Your task to perform on an android device: See recent photos Image 0: 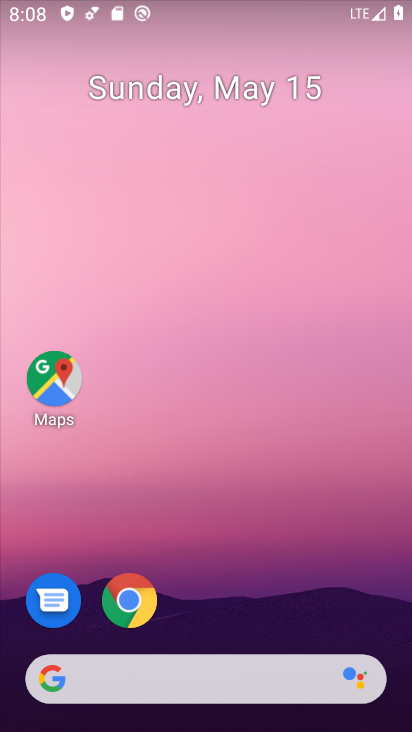
Step 0: drag from (181, 558) to (66, 88)
Your task to perform on an android device: See recent photos Image 1: 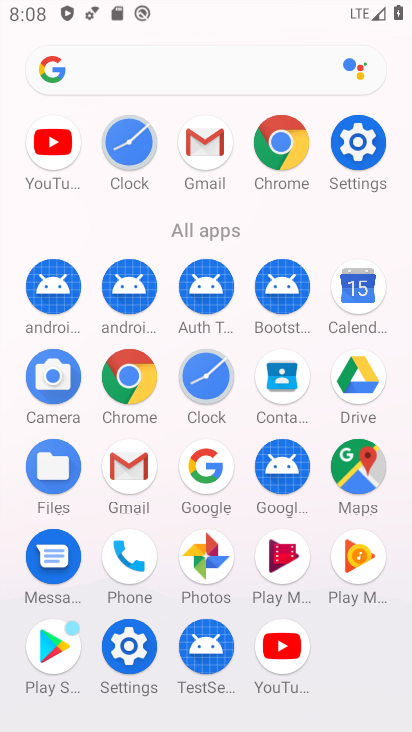
Step 1: click (200, 550)
Your task to perform on an android device: See recent photos Image 2: 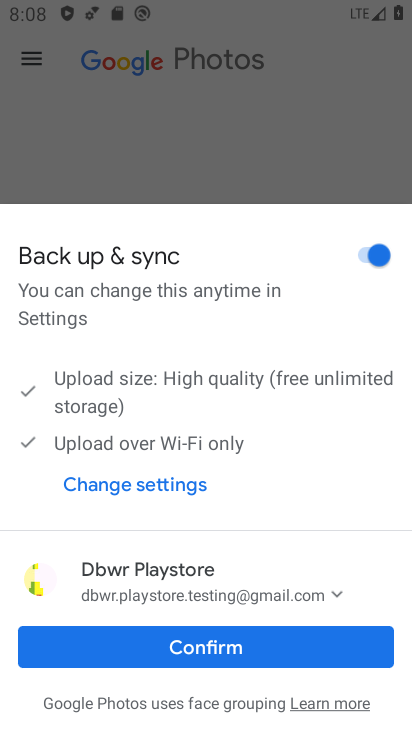
Step 2: click (253, 642)
Your task to perform on an android device: See recent photos Image 3: 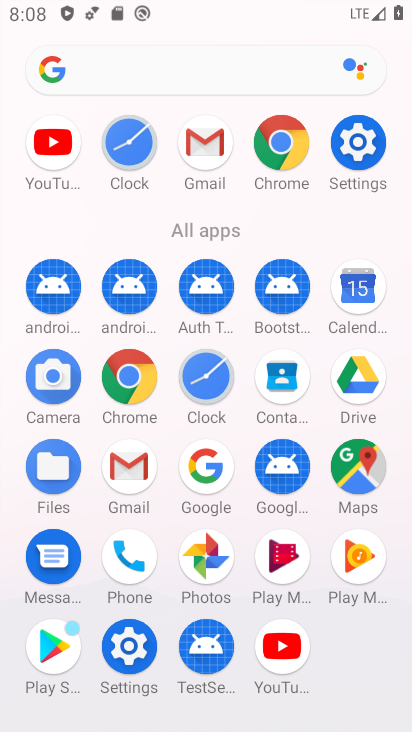
Step 3: click (190, 552)
Your task to perform on an android device: See recent photos Image 4: 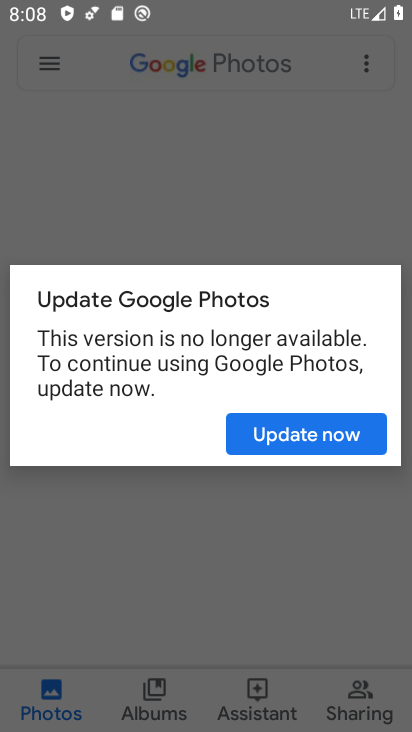
Step 4: click (294, 442)
Your task to perform on an android device: See recent photos Image 5: 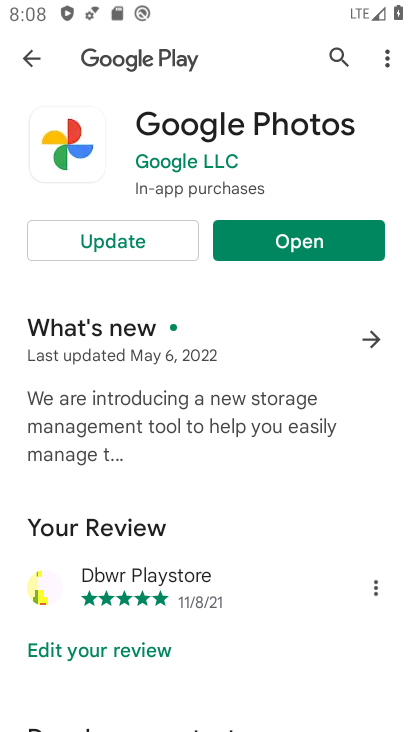
Step 5: task complete